Your task to perform on an android device: What is the recent news? Image 0: 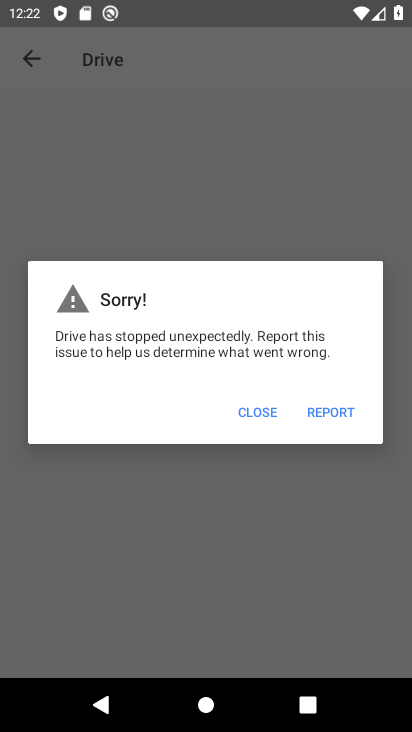
Step 0: press back button
Your task to perform on an android device: What is the recent news? Image 1: 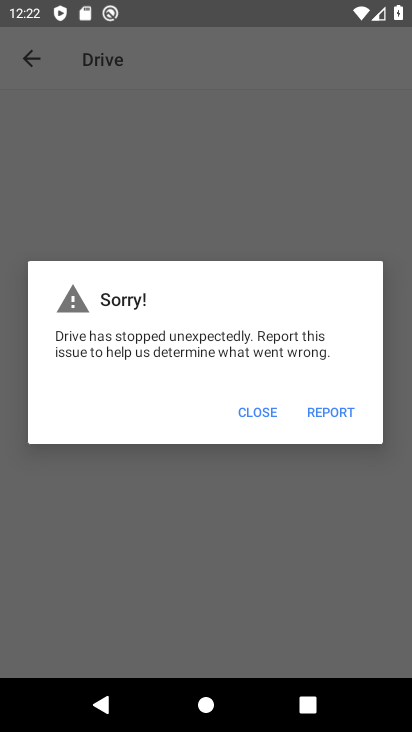
Step 1: press back button
Your task to perform on an android device: What is the recent news? Image 2: 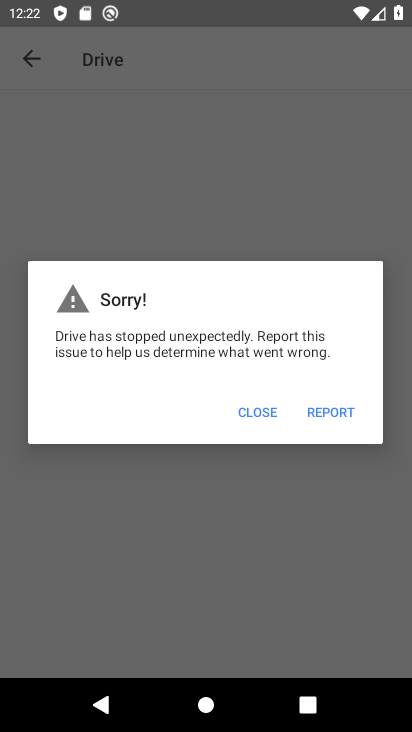
Step 2: click (239, 413)
Your task to perform on an android device: What is the recent news? Image 3: 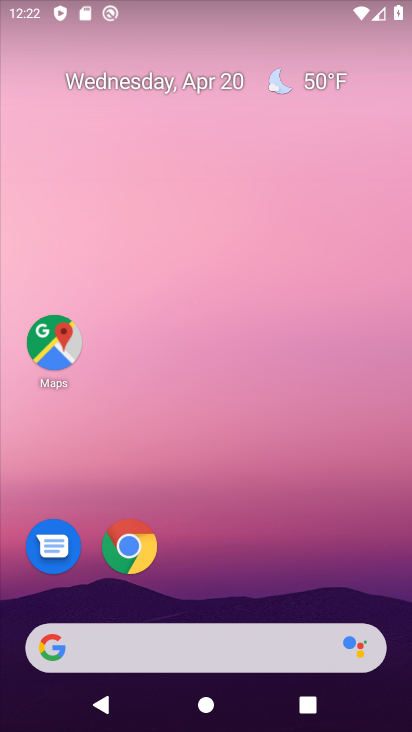
Step 3: click (190, 647)
Your task to perform on an android device: What is the recent news? Image 4: 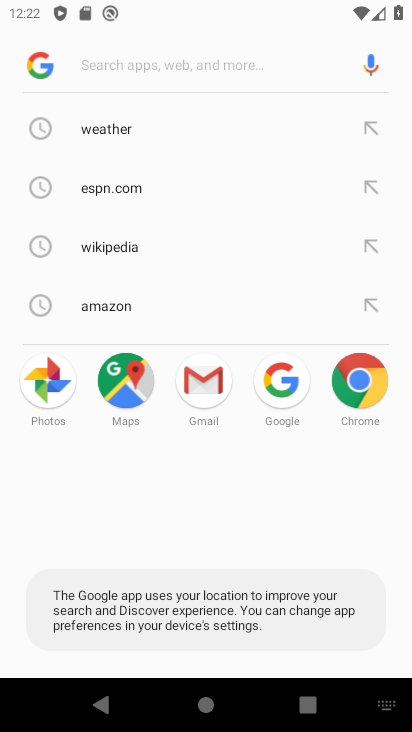
Step 4: click (123, 63)
Your task to perform on an android device: What is the recent news? Image 5: 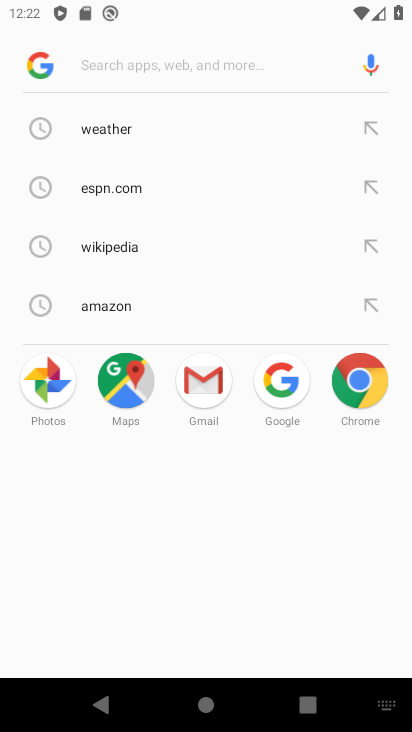
Step 5: type "recent news"
Your task to perform on an android device: What is the recent news? Image 6: 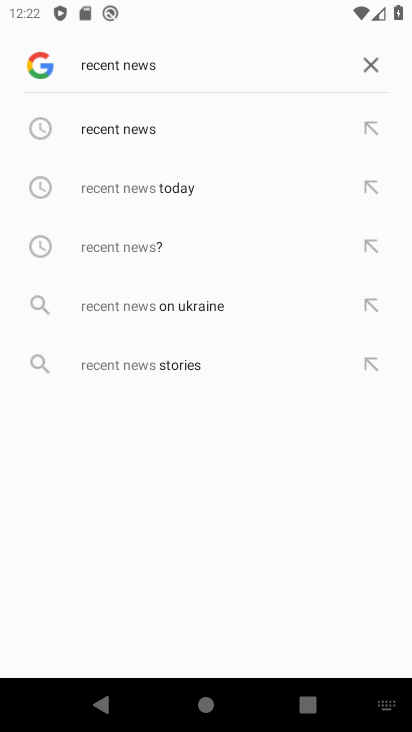
Step 6: click (129, 120)
Your task to perform on an android device: What is the recent news? Image 7: 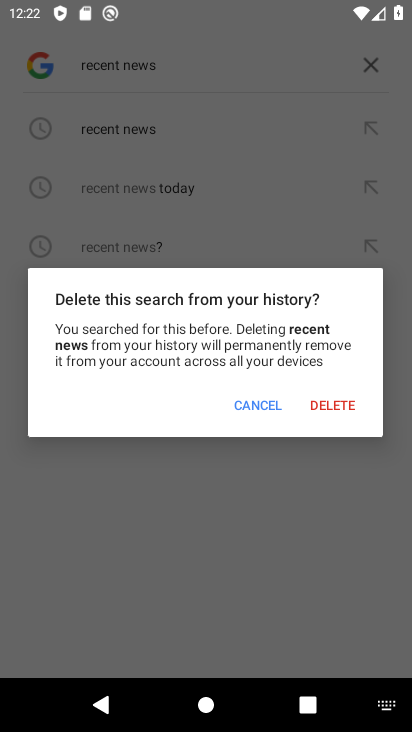
Step 7: click (270, 409)
Your task to perform on an android device: What is the recent news? Image 8: 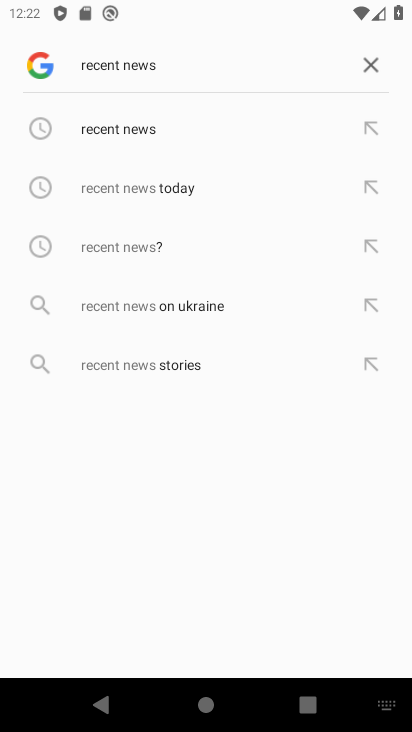
Step 8: click (197, 137)
Your task to perform on an android device: What is the recent news? Image 9: 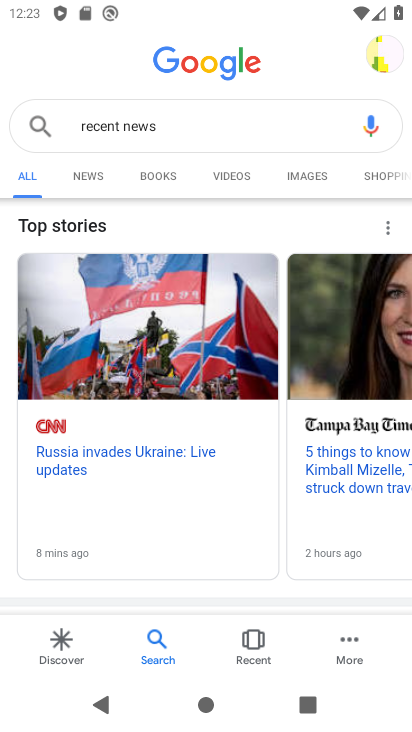
Step 9: task complete